Your task to perform on an android device: Show me popular videos on Youtube Image 0: 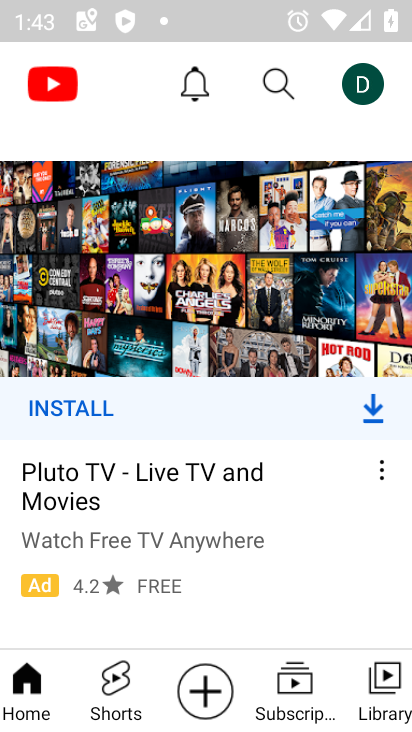
Step 0: drag from (153, 214) to (159, 661)
Your task to perform on an android device: Show me popular videos on Youtube Image 1: 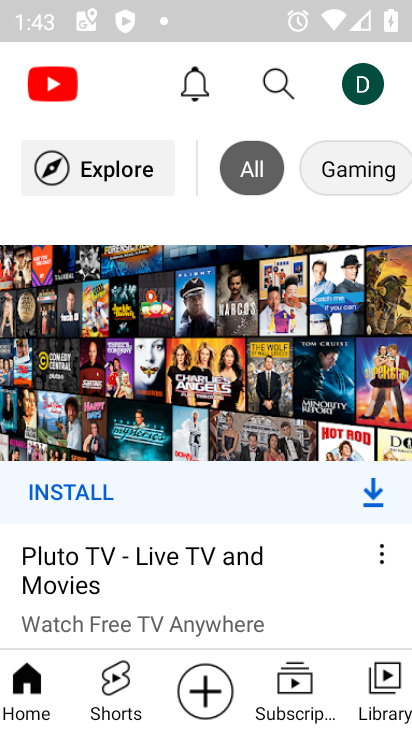
Step 1: click (99, 178)
Your task to perform on an android device: Show me popular videos on Youtube Image 2: 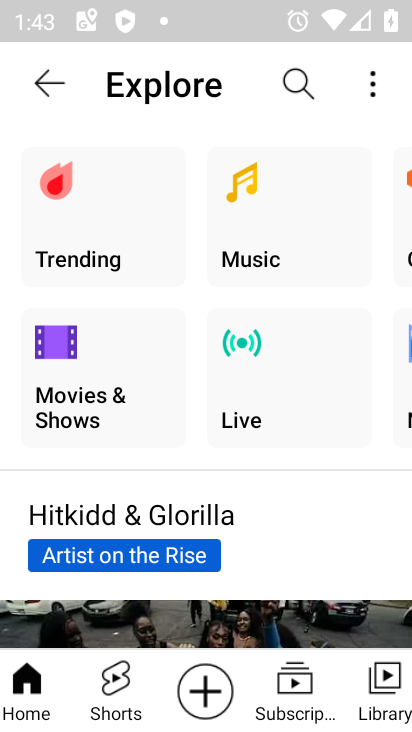
Step 2: click (101, 251)
Your task to perform on an android device: Show me popular videos on Youtube Image 3: 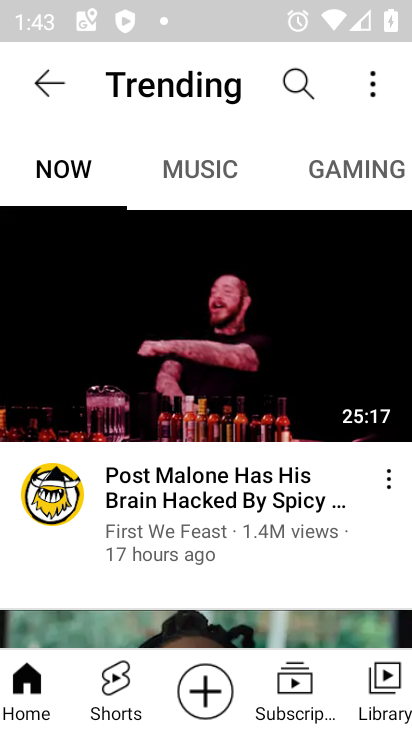
Step 3: task complete